Your task to perform on an android device: Go to Amazon Image 0: 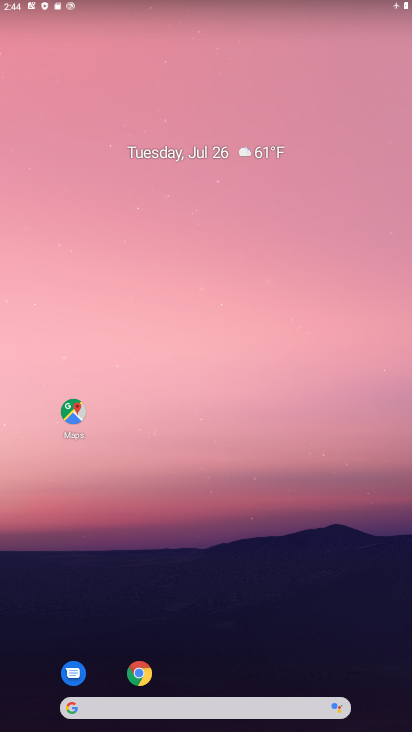
Step 0: drag from (226, 544) to (233, 172)
Your task to perform on an android device: Go to Amazon Image 1: 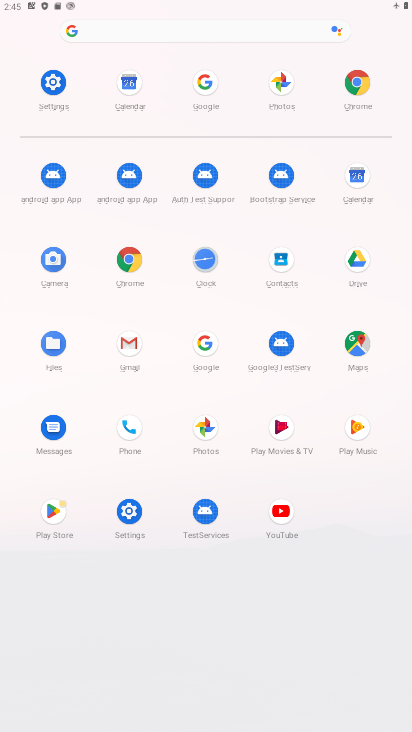
Step 1: click (132, 267)
Your task to perform on an android device: Go to Amazon Image 2: 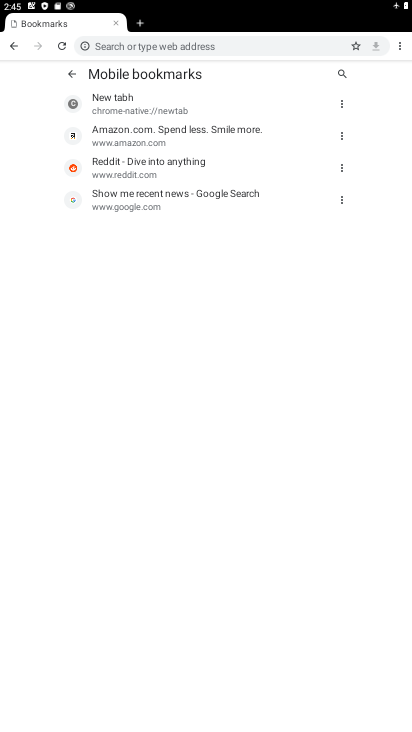
Step 2: click (142, 23)
Your task to perform on an android device: Go to Amazon Image 3: 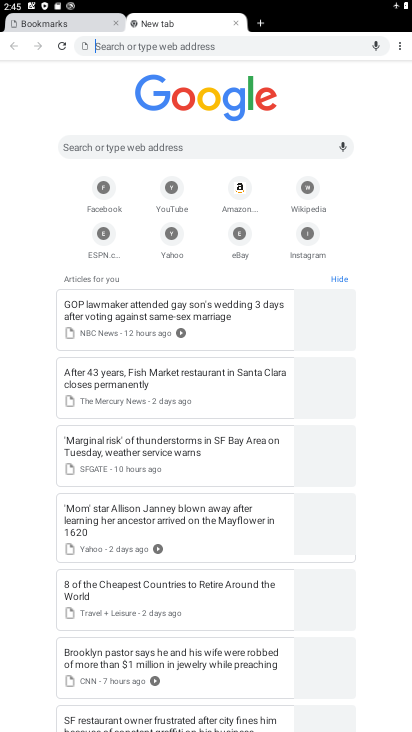
Step 3: click (247, 183)
Your task to perform on an android device: Go to Amazon Image 4: 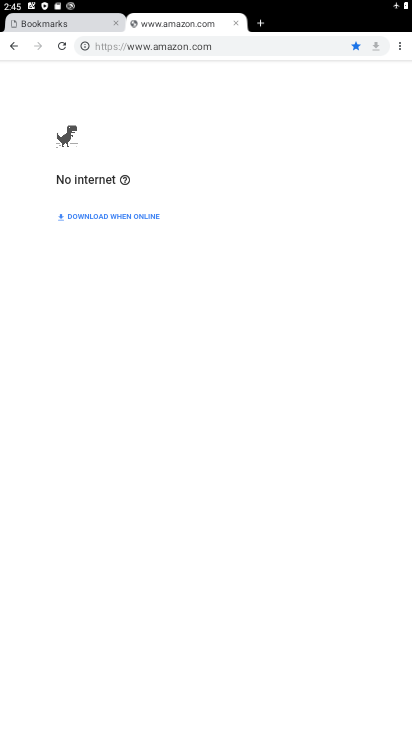
Step 4: task complete